Your task to perform on an android device: turn smart compose on in the gmail app Image 0: 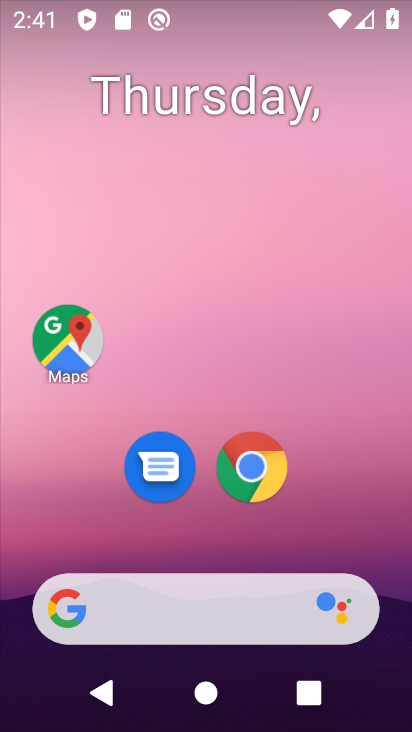
Step 0: drag from (250, 599) to (151, 2)
Your task to perform on an android device: turn smart compose on in the gmail app Image 1: 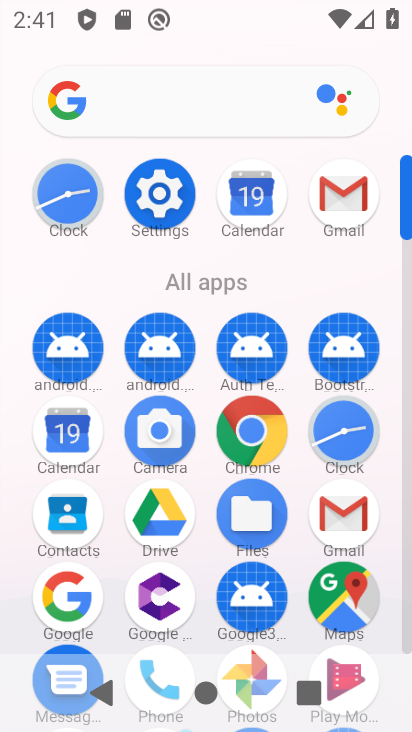
Step 1: click (341, 200)
Your task to perform on an android device: turn smart compose on in the gmail app Image 2: 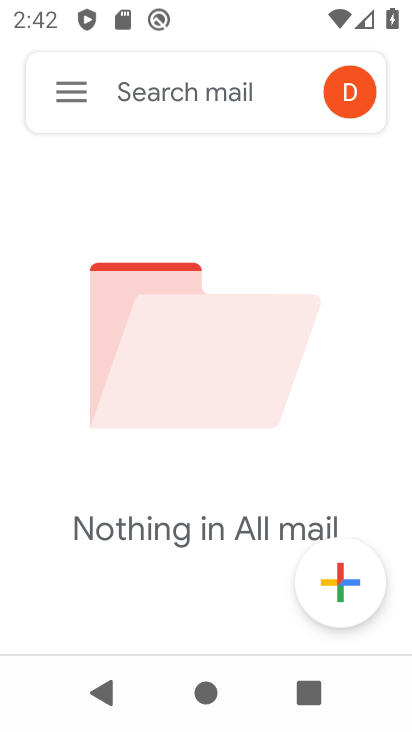
Step 2: click (69, 117)
Your task to perform on an android device: turn smart compose on in the gmail app Image 3: 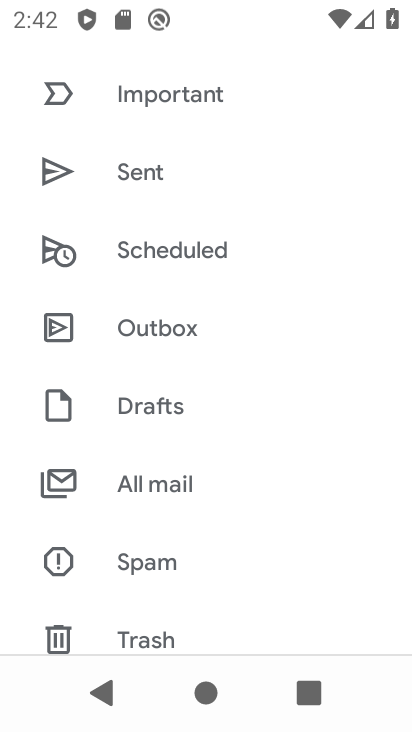
Step 3: drag from (198, 523) to (120, 12)
Your task to perform on an android device: turn smart compose on in the gmail app Image 4: 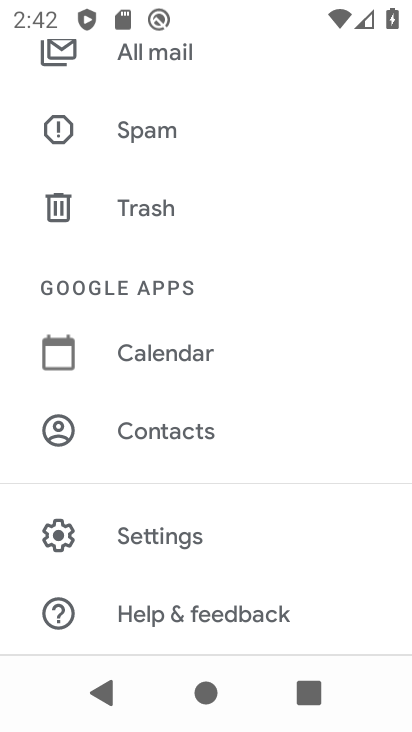
Step 4: click (151, 537)
Your task to perform on an android device: turn smart compose on in the gmail app Image 5: 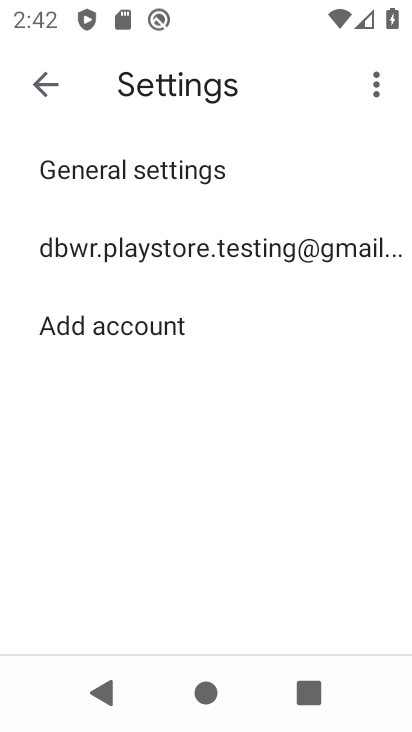
Step 5: click (178, 264)
Your task to perform on an android device: turn smart compose on in the gmail app Image 6: 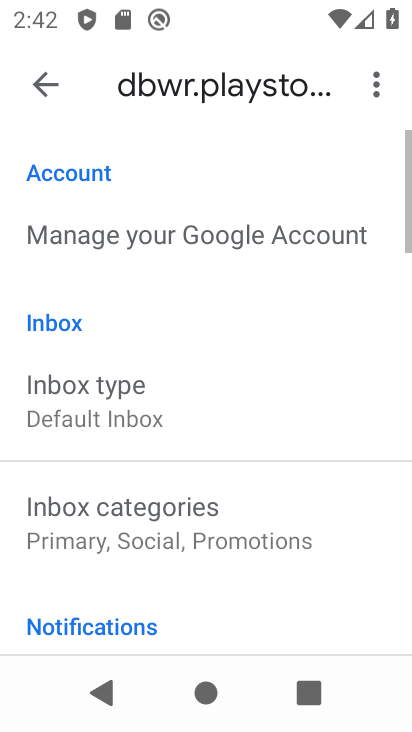
Step 6: task complete